Your task to perform on an android device: Open notification settings Image 0: 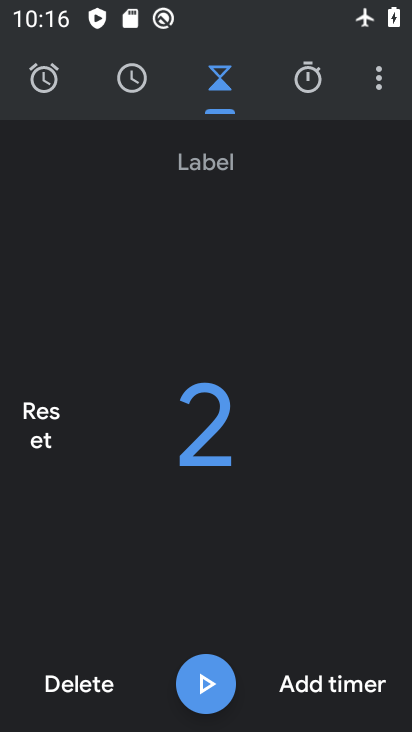
Step 0: press home button
Your task to perform on an android device: Open notification settings Image 1: 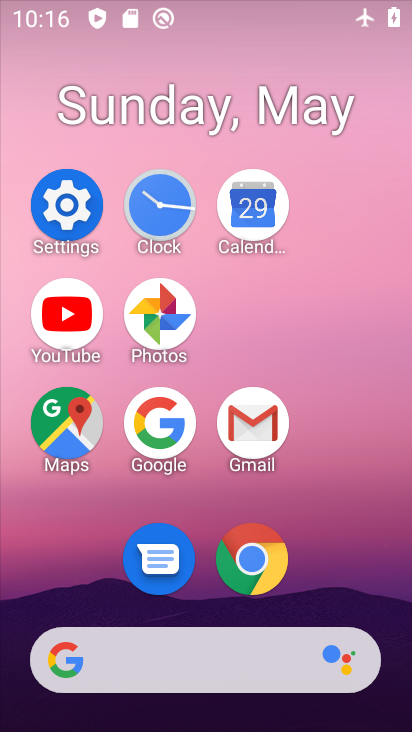
Step 1: click (97, 196)
Your task to perform on an android device: Open notification settings Image 2: 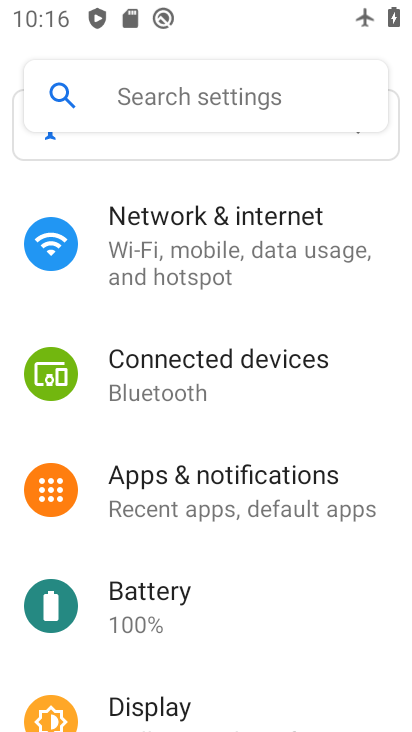
Step 2: click (274, 530)
Your task to perform on an android device: Open notification settings Image 3: 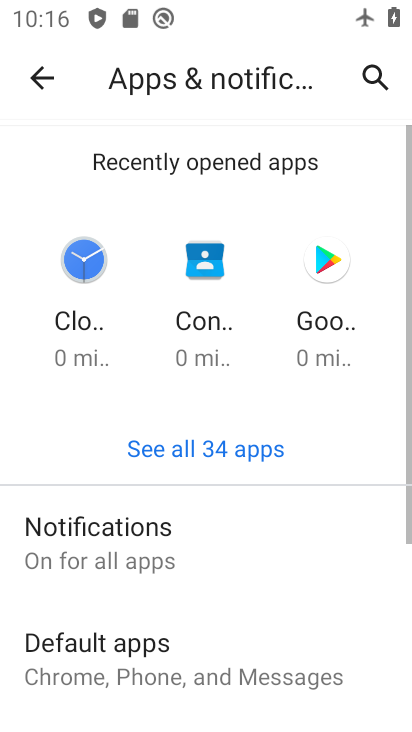
Step 3: task complete